Your task to perform on an android device: empty trash in google photos Image 0: 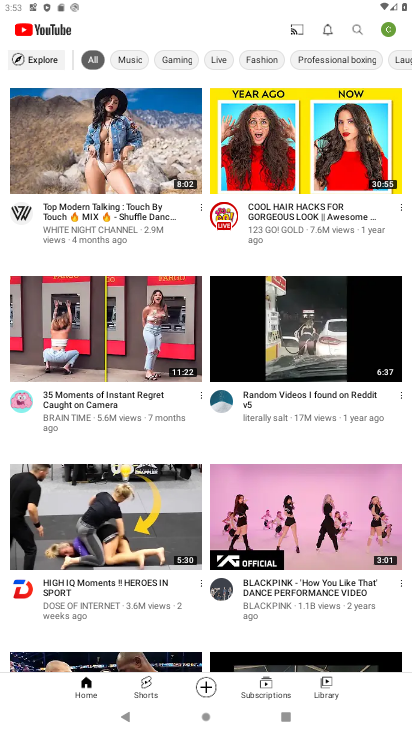
Step 0: press home button
Your task to perform on an android device: empty trash in google photos Image 1: 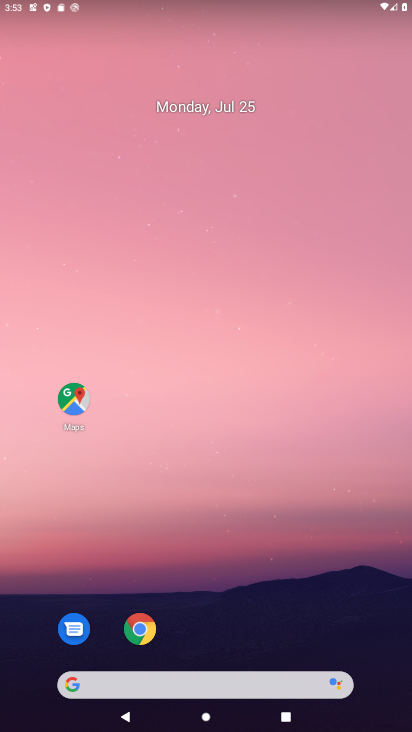
Step 1: drag from (250, 678) to (256, 5)
Your task to perform on an android device: empty trash in google photos Image 2: 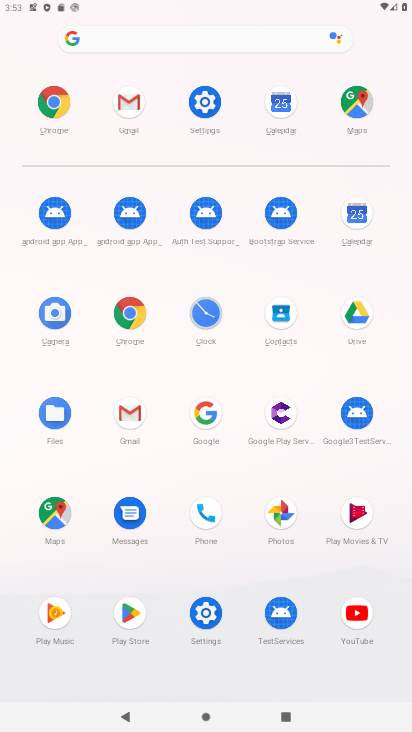
Step 2: click (275, 499)
Your task to perform on an android device: empty trash in google photos Image 3: 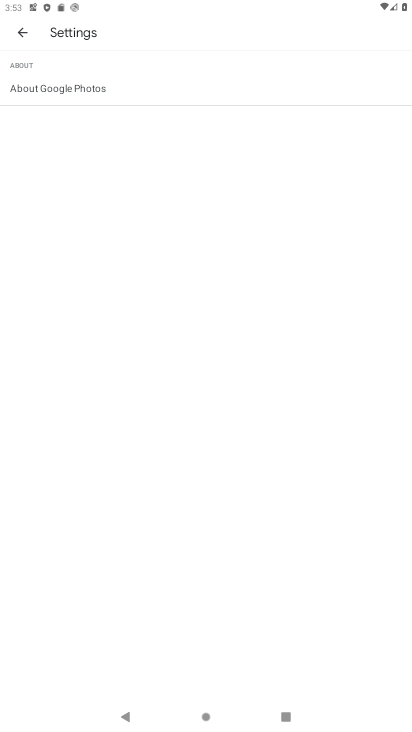
Step 3: press back button
Your task to perform on an android device: empty trash in google photos Image 4: 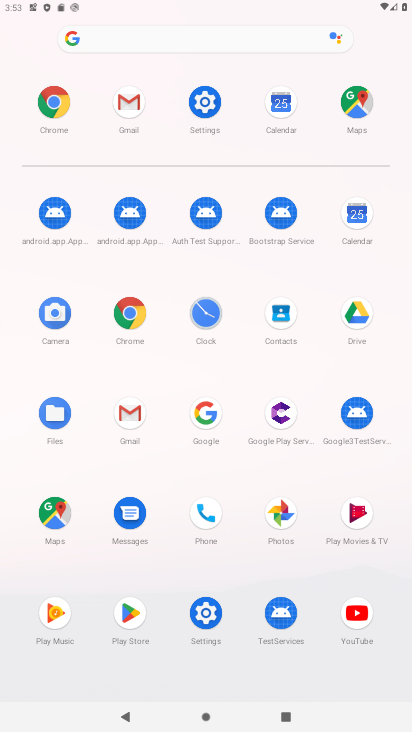
Step 4: click (288, 518)
Your task to perform on an android device: empty trash in google photos Image 5: 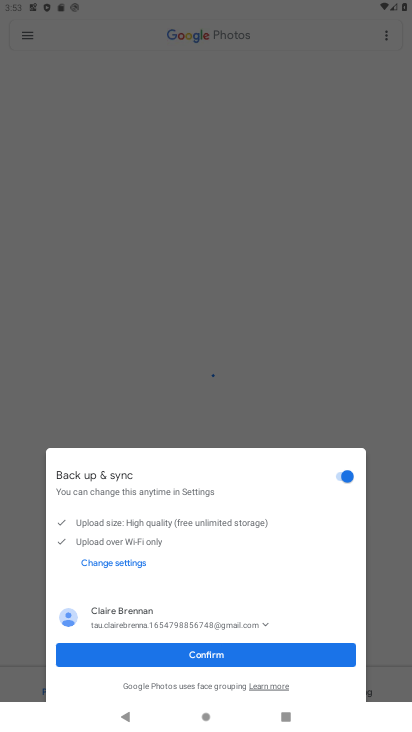
Step 5: click (224, 658)
Your task to perform on an android device: empty trash in google photos Image 6: 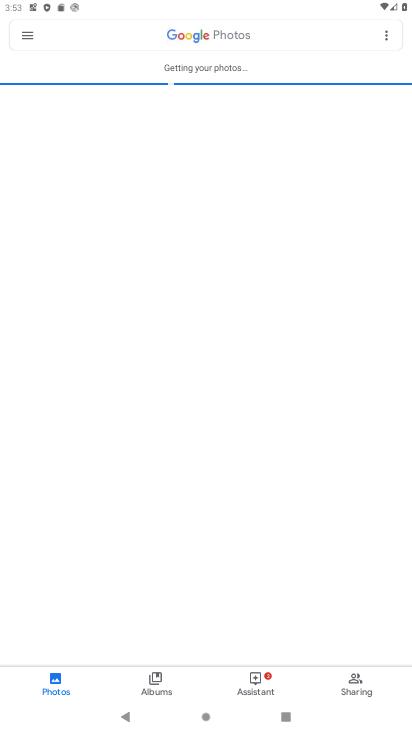
Step 6: click (31, 35)
Your task to perform on an android device: empty trash in google photos Image 7: 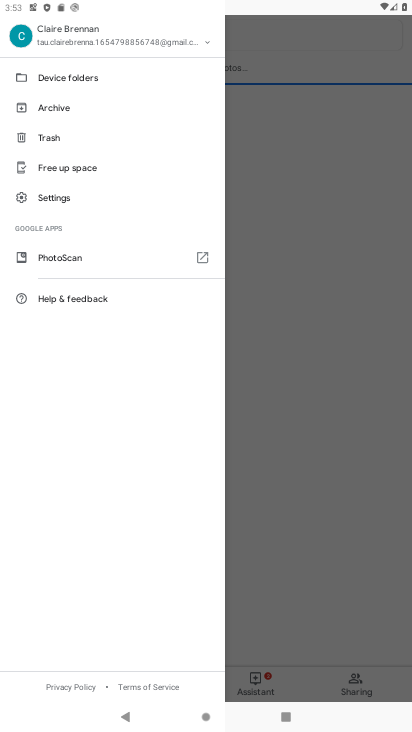
Step 7: click (57, 137)
Your task to perform on an android device: empty trash in google photos Image 8: 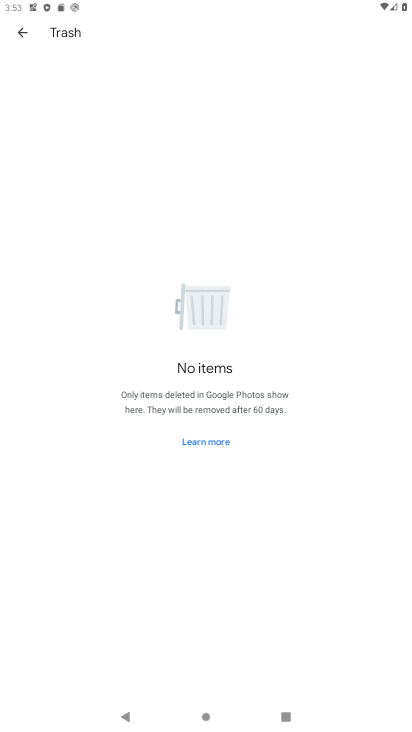
Step 8: task complete